Your task to perform on an android device: Do I have any events tomorrow? Image 0: 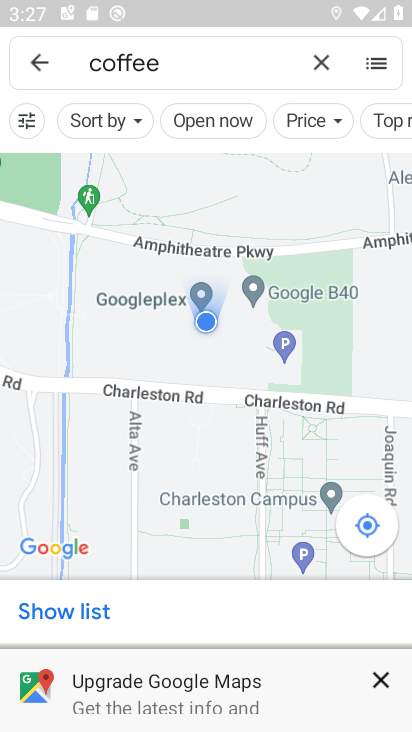
Step 0: click (202, 201)
Your task to perform on an android device: Do I have any events tomorrow? Image 1: 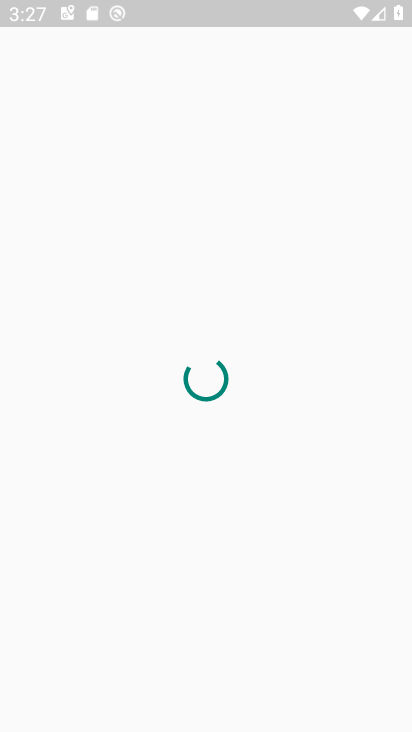
Step 1: press back button
Your task to perform on an android device: Do I have any events tomorrow? Image 2: 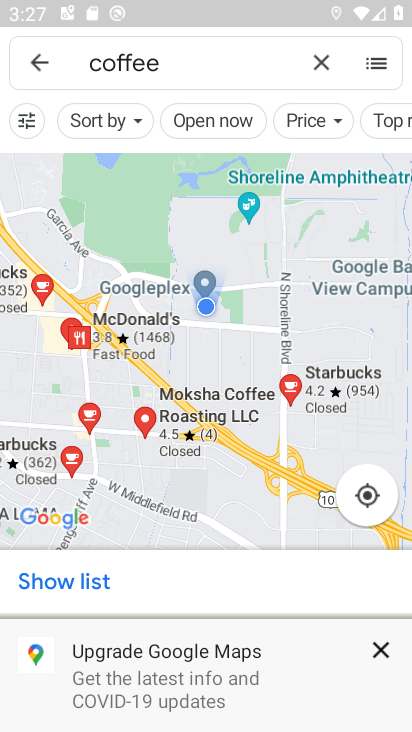
Step 2: click (45, 55)
Your task to perform on an android device: Do I have any events tomorrow? Image 3: 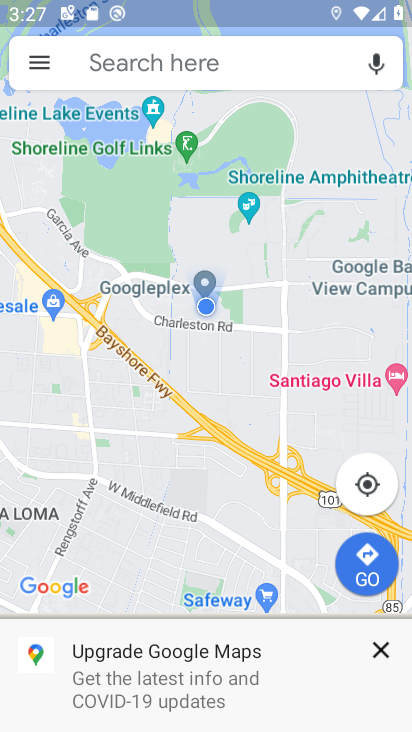
Step 3: press home button
Your task to perform on an android device: Do I have any events tomorrow? Image 4: 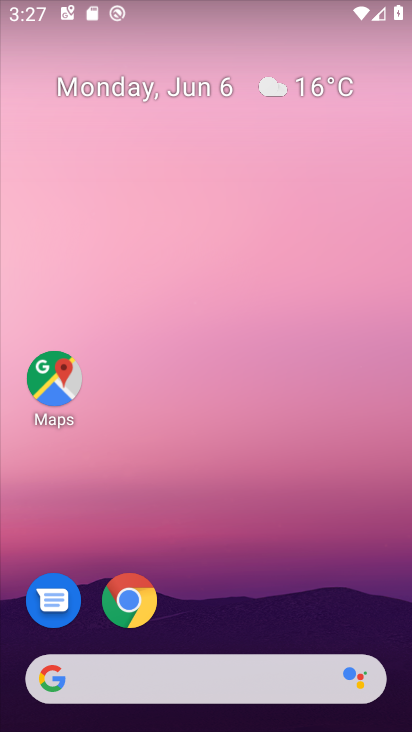
Step 4: drag from (236, 536) to (170, 8)
Your task to perform on an android device: Do I have any events tomorrow? Image 5: 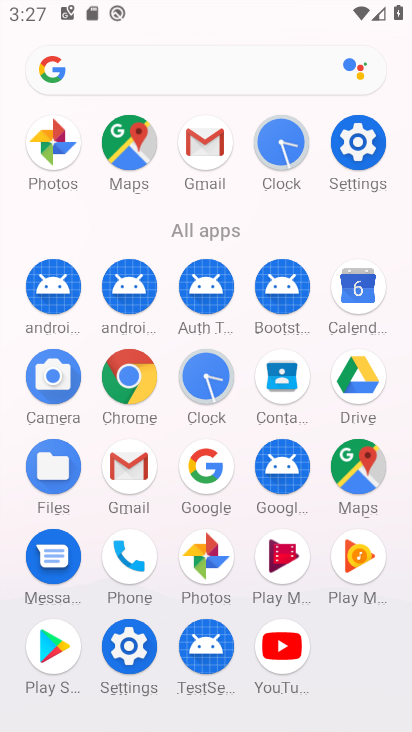
Step 5: click (355, 304)
Your task to perform on an android device: Do I have any events tomorrow? Image 6: 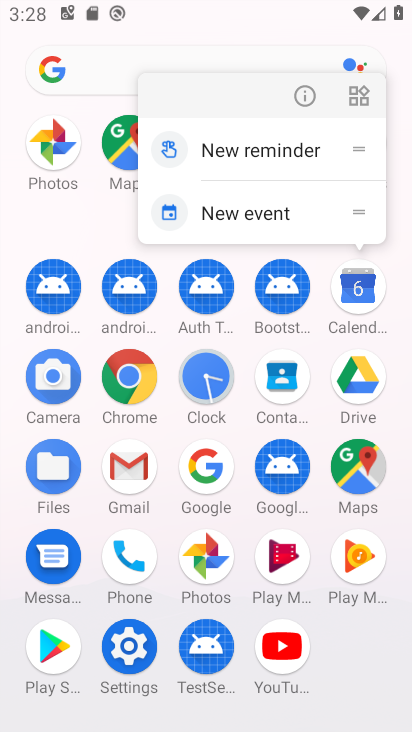
Step 6: click (257, 215)
Your task to perform on an android device: Do I have any events tomorrow? Image 7: 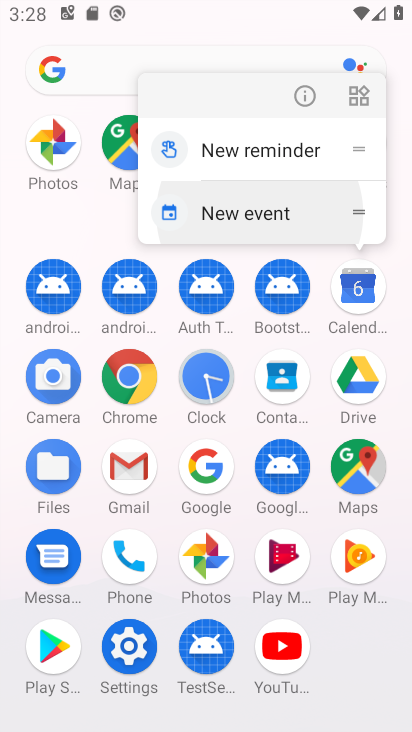
Step 7: click (255, 214)
Your task to perform on an android device: Do I have any events tomorrow? Image 8: 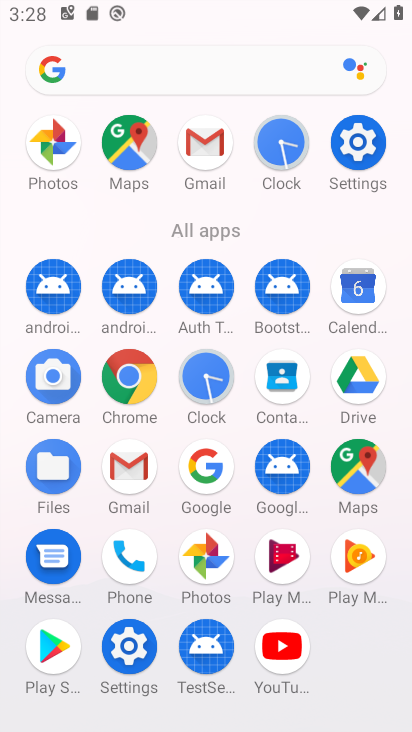
Step 8: click (261, 223)
Your task to perform on an android device: Do I have any events tomorrow? Image 9: 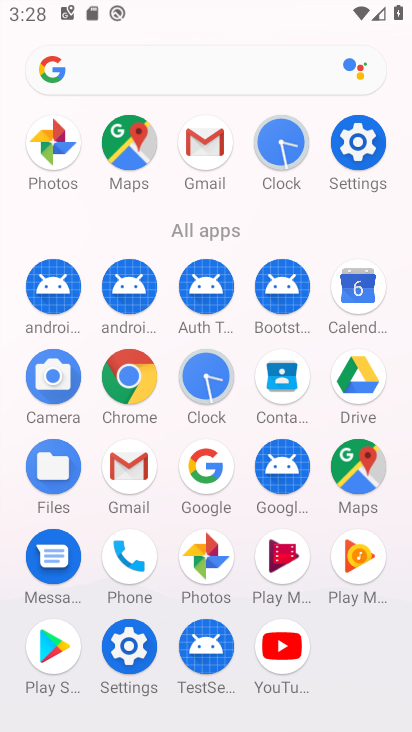
Step 9: click (259, 226)
Your task to perform on an android device: Do I have any events tomorrow? Image 10: 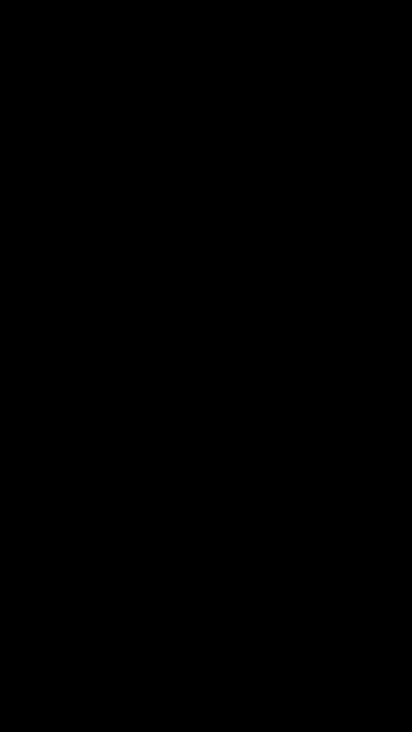
Step 10: click (378, 298)
Your task to perform on an android device: Do I have any events tomorrow? Image 11: 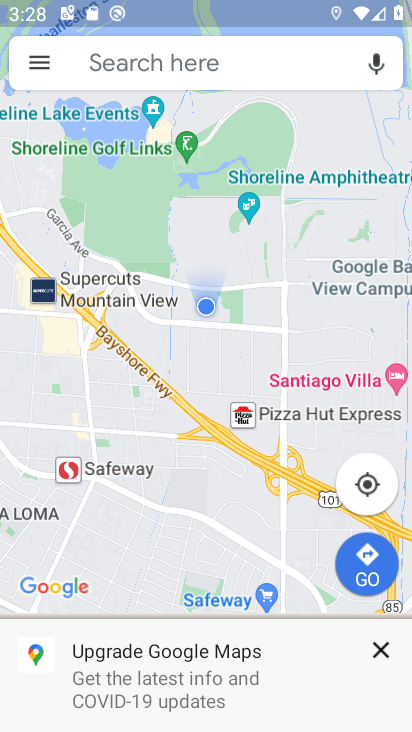
Step 11: press back button
Your task to perform on an android device: Do I have any events tomorrow? Image 12: 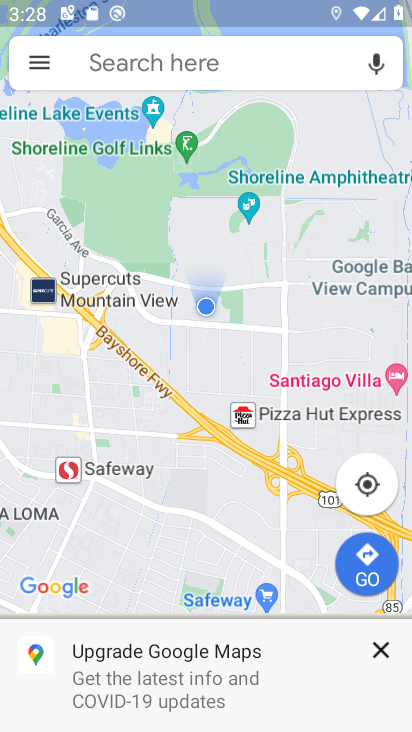
Step 12: press home button
Your task to perform on an android device: Do I have any events tomorrow? Image 13: 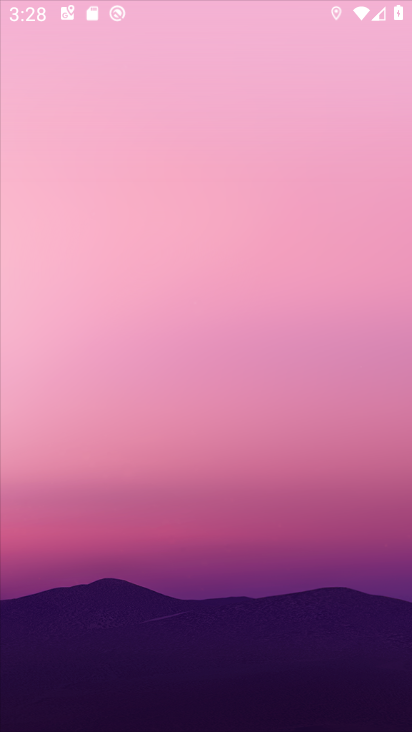
Step 13: press back button
Your task to perform on an android device: Do I have any events tomorrow? Image 14: 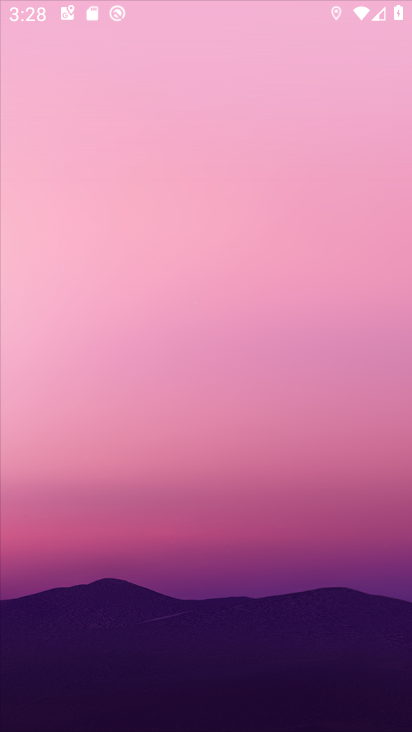
Step 14: click (126, 0)
Your task to perform on an android device: Do I have any events tomorrow? Image 15: 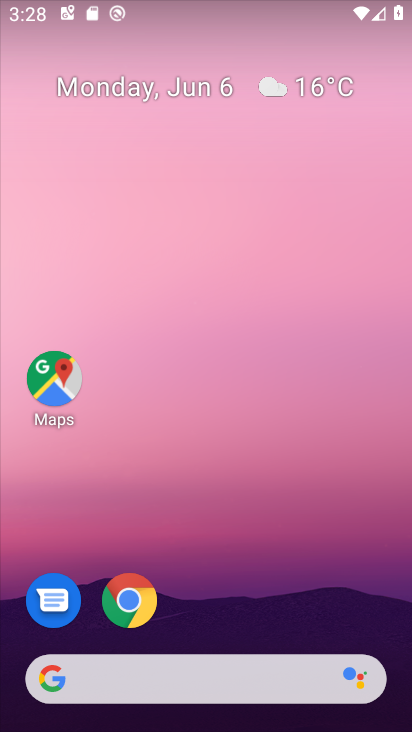
Step 15: drag from (230, 606) to (155, 21)
Your task to perform on an android device: Do I have any events tomorrow? Image 16: 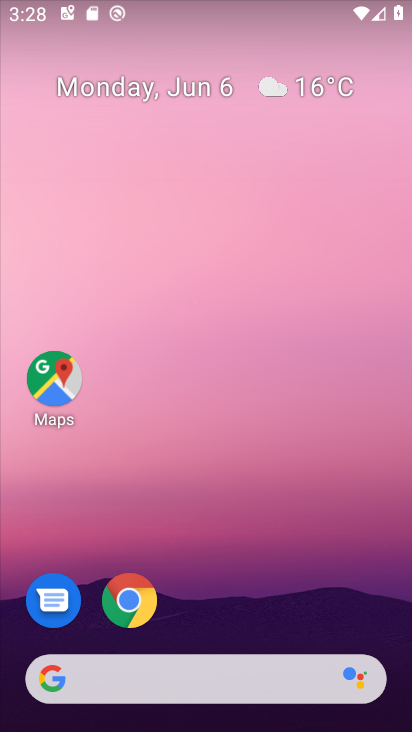
Step 16: click (197, 144)
Your task to perform on an android device: Do I have any events tomorrow? Image 17: 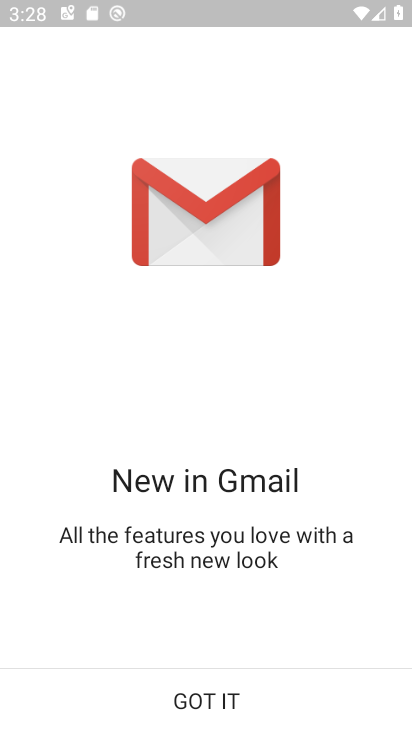
Step 17: click (205, 703)
Your task to perform on an android device: Do I have any events tomorrow? Image 18: 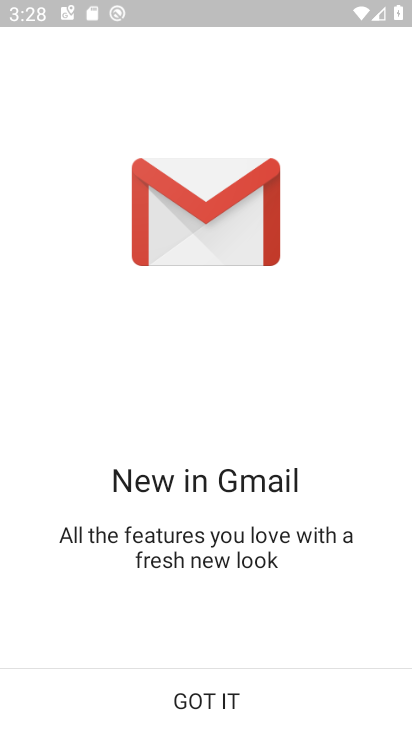
Step 18: drag from (203, 701) to (224, 672)
Your task to perform on an android device: Do I have any events tomorrow? Image 19: 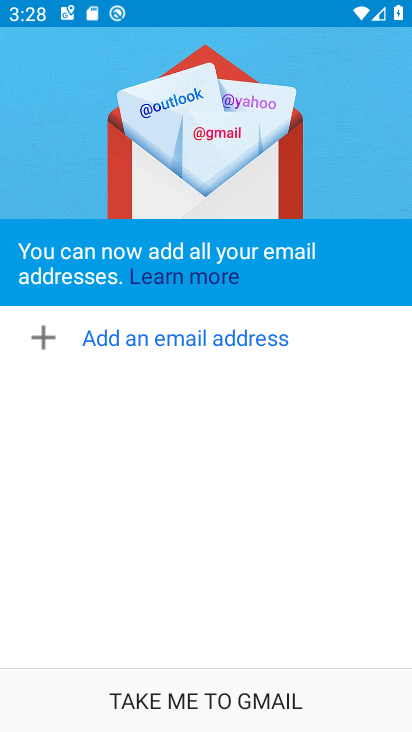
Step 19: press back button
Your task to perform on an android device: Do I have any events tomorrow? Image 20: 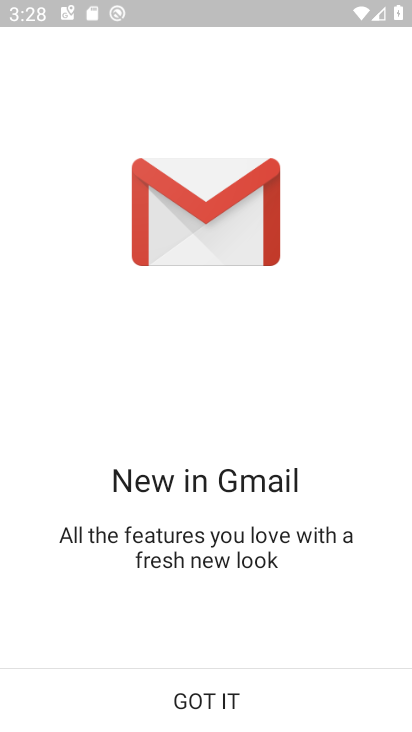
Step 20: click (165, 703)
Your task to perform on an android device: Do I have any events tomorrow? Image 21: 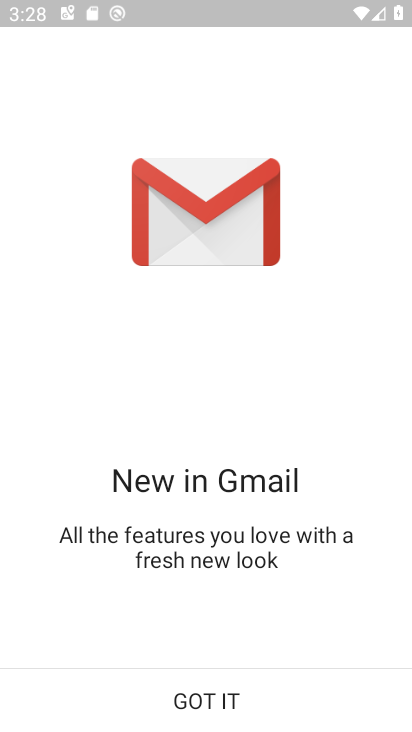
Step 21: click (200, 693)
Your task to perform on an android device: Do I have any events tomorrow? Image 22: 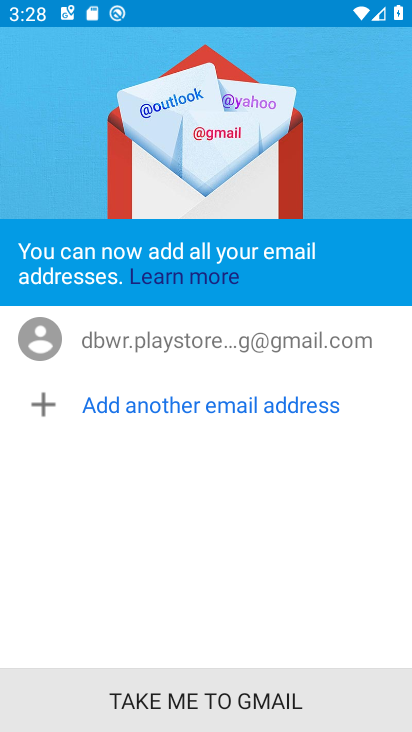
Step 22: click (207, 695)
Your task to perform on an android device: Do I have any events tomorrow? Image 23: 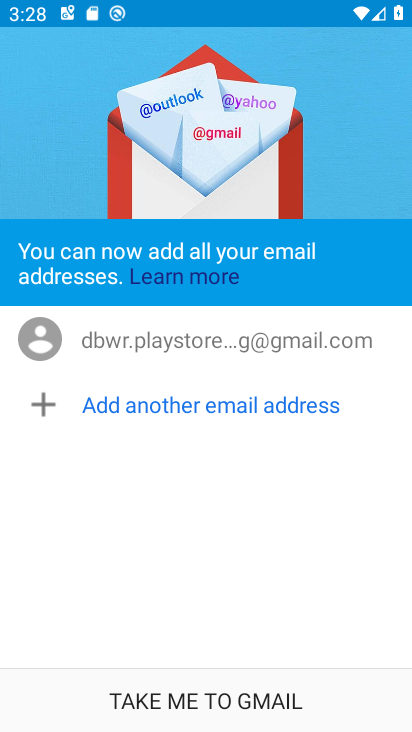
Step 23: click (208, 695)
Your task to perform on an android device: Do I have any events tomorrow? Image 24: 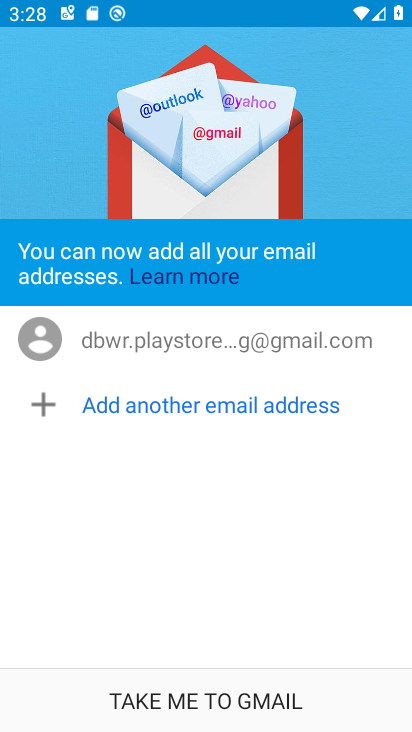
Step 24: click (208, 689)
Your task to perform on an android device: Do I have any events tomorrow? Image 25: 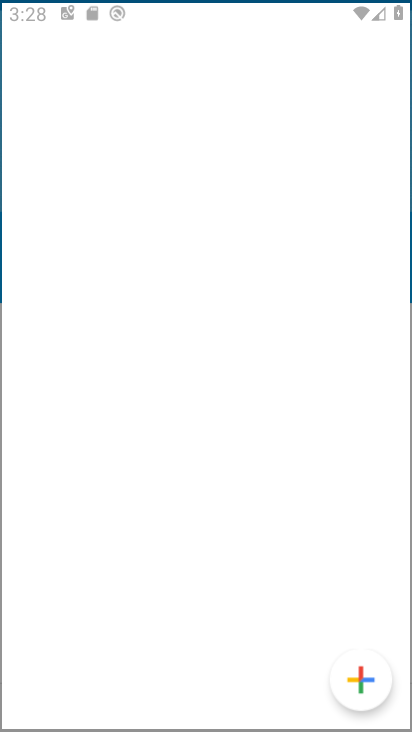
Step 25: click (211, 683)
Your task to perform on an android device: Do I have any events tomorrow? Image 26: 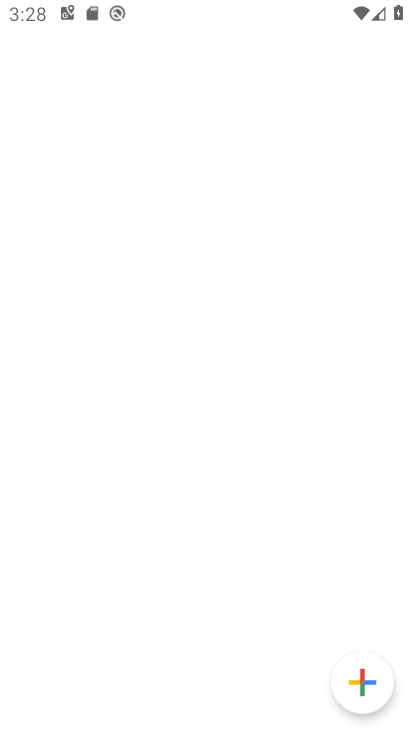
Step 26: click (214, 682)
Your task to perform on an android device: Do I have any events tomorrow? Image 27: 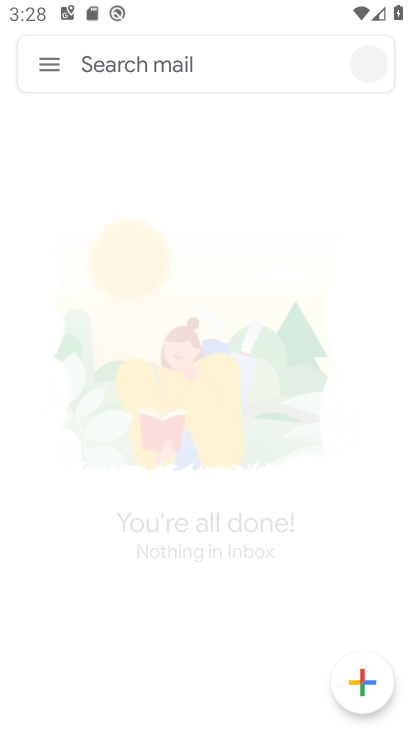
Step 27: press back button
Your task to perform on an android device: Do I have any events tomorrow? Image 28: 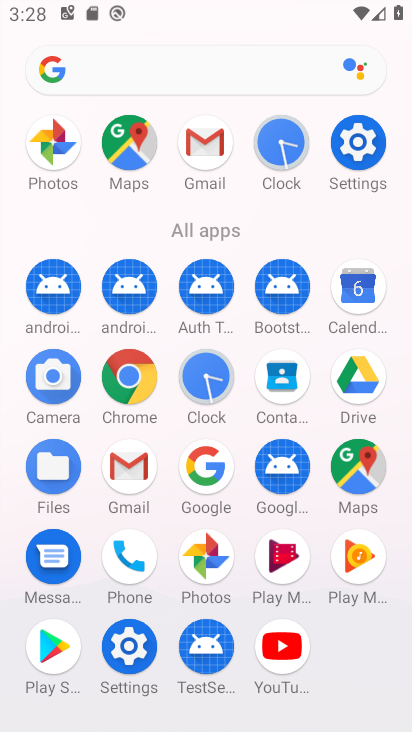
Step 28: drag from (334, 291) to (368, 305)
Your task to perform on an android device: Do I have any events tomorrow? Image 29: 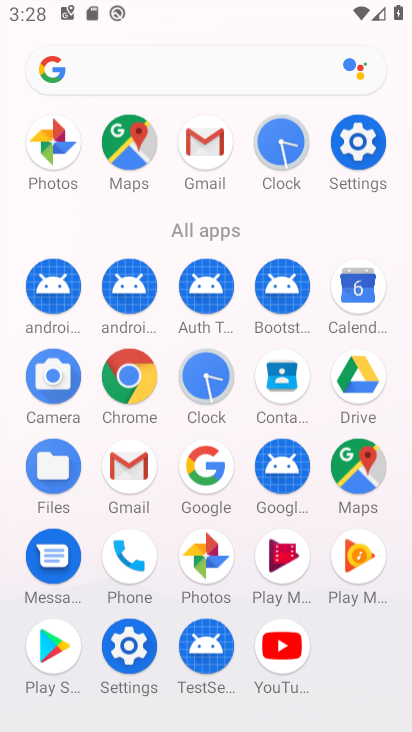
Step 29: click (367, 296)
Your task to perform on an android device: Do I have any events tomorrow? Image 30: 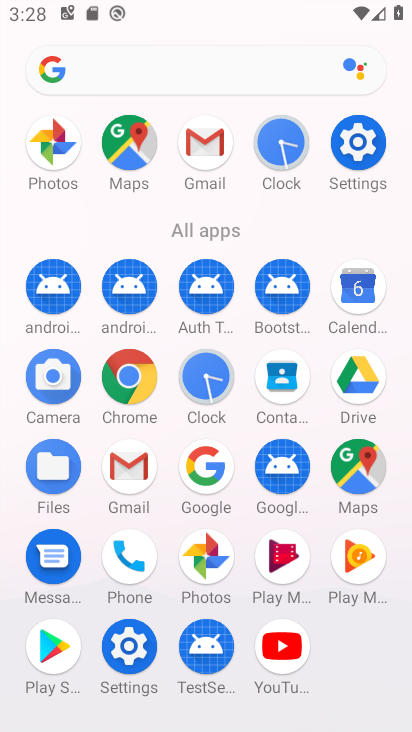
Step 30: click (367, 296)
Your task to perform on an android device: Do I have any events tomorrow? Image 31: 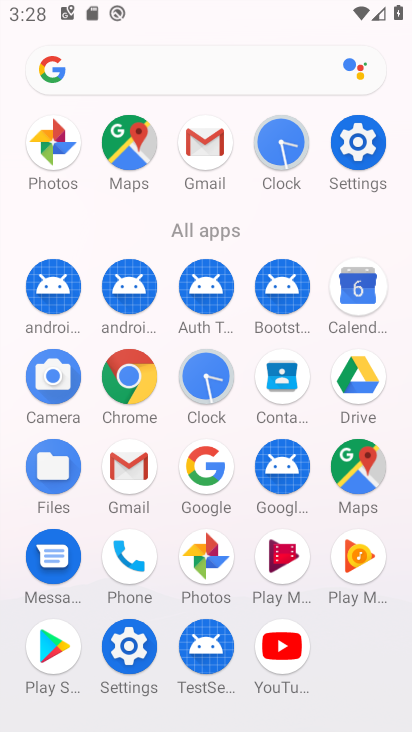
Step 31: click (367, 296)
Your task to perform on an android device: Do I have any events tomorrow? Image 32: 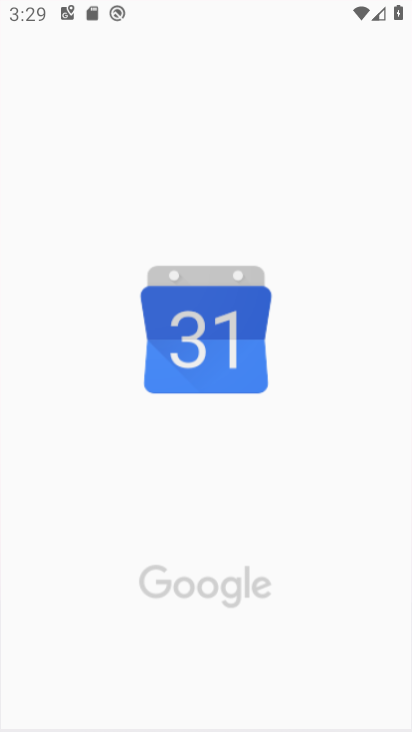
Step 32: click (370, 296)
Your task to perform on an android device: Do I have any events tomorrow? Image 33: 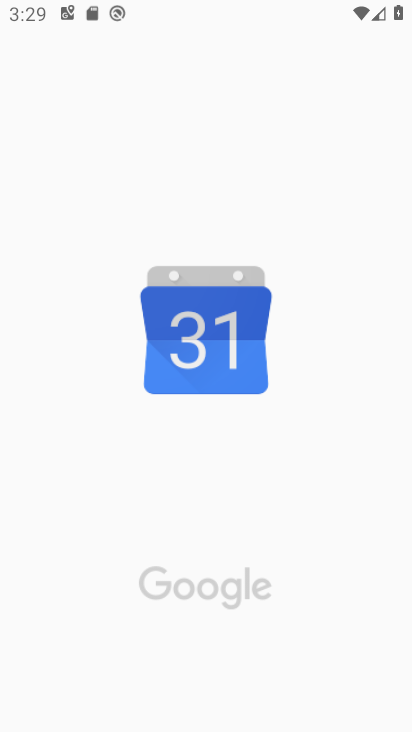
Step 33: click (365, 293)
Your task to perform on an android device: Do I have any events tomorrow? Image 34: 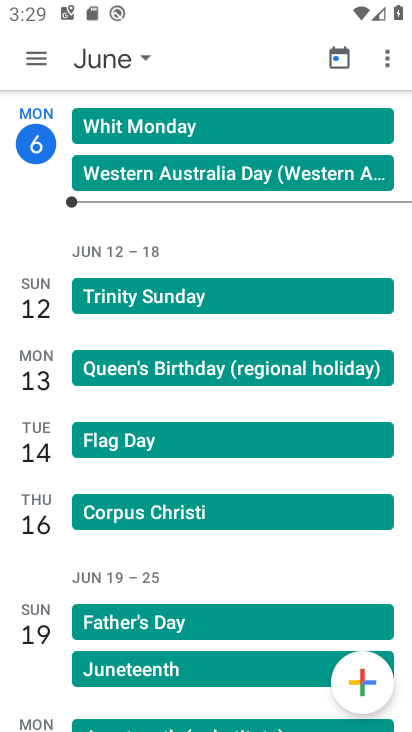
Step 34: click (105, 189)
Your task to perform on an android device: Do I have any events tomorrow? Image 35: 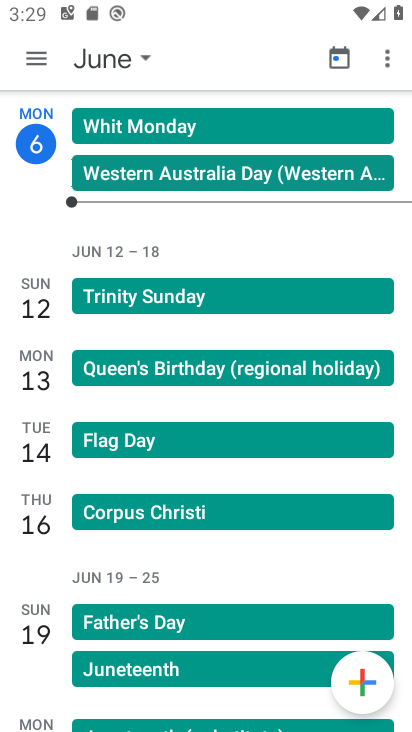
Step 35: click (105, 189)
Your task to perform on an android device: Do I have any events tomorrow? Image 36: 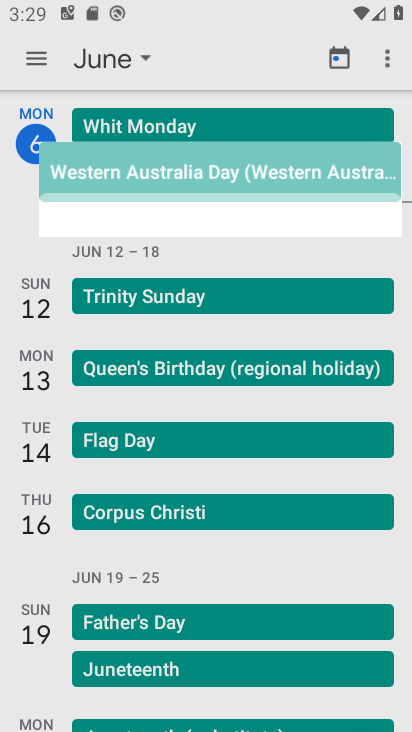
Step 36: click (47, 73)
Your task to perform on an android device: Do I have any events tomorrow? Image 37: 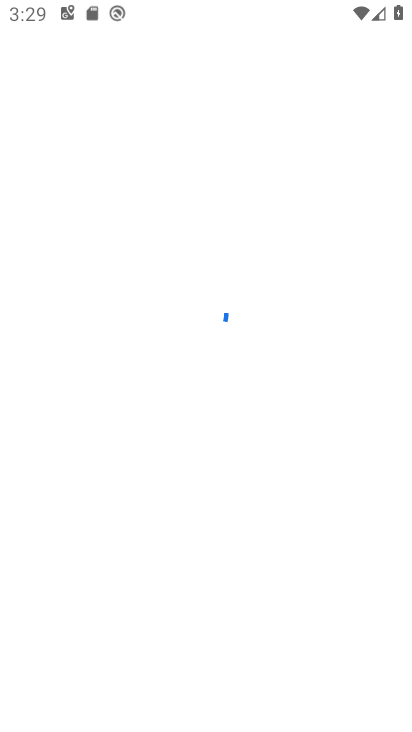
Step 37: task complete